Your task to perform on an android device: turn off picture-in-picture Image 0: 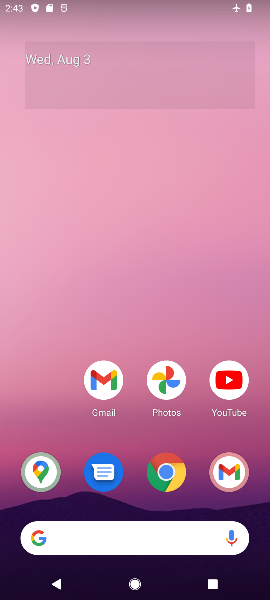
Step 0: drag from (190, 419) to (69, 16)
Your task to perform on an android device: turn off picture-in-picture Image 1: 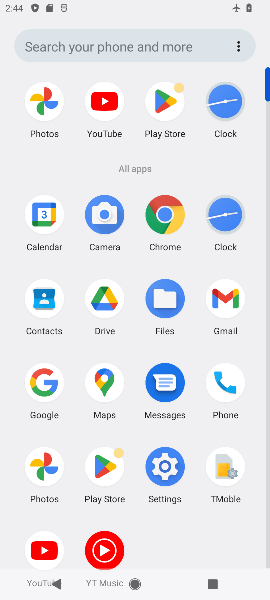
Step 1: click (163, 220)
Your task to perform on an android device: turn off picture-in-picture Image 2: 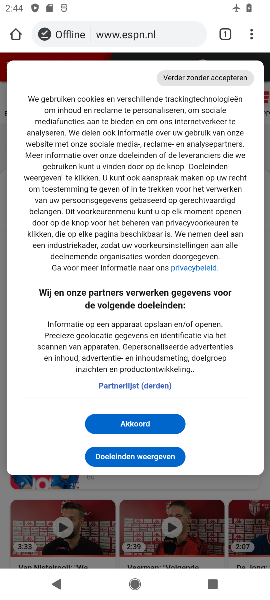
Step 2: press back button
Your task to perform on an android device: turn off picture-in-picture Image 3: 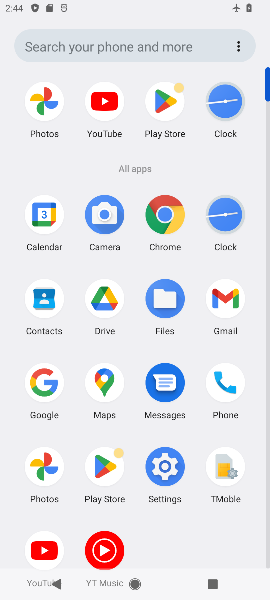
Step 3: click (151, 234)
Your task to perform on an android device: turn off picture-in-picture Image 4: 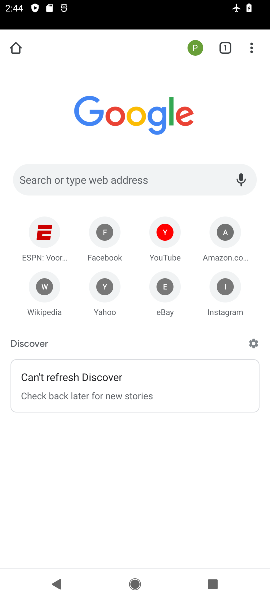
Step 4: task complete